Your task to perform on an android device: Go to ESPN.com Image 0: 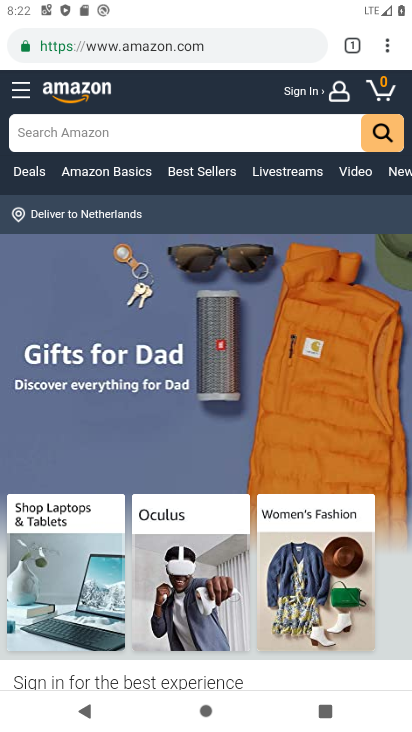
Step 0: press home button
Your task to perform on an android device: Go to ESPN.com Image 1: 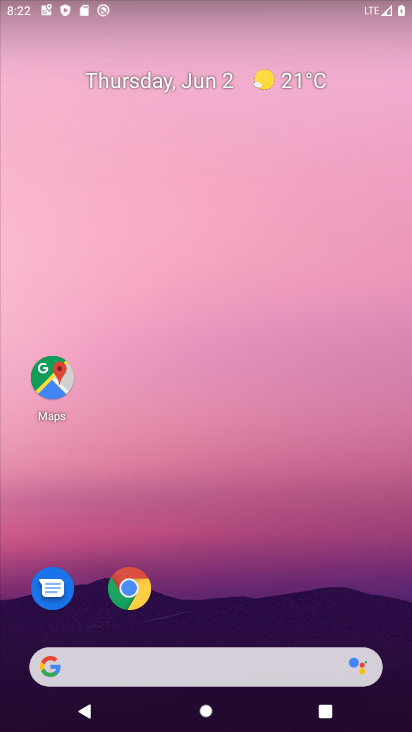
Step 1: drag from (267, 646) to (267, 214)
Your task to perform on an android device: Go to ESPN.com Image 2: 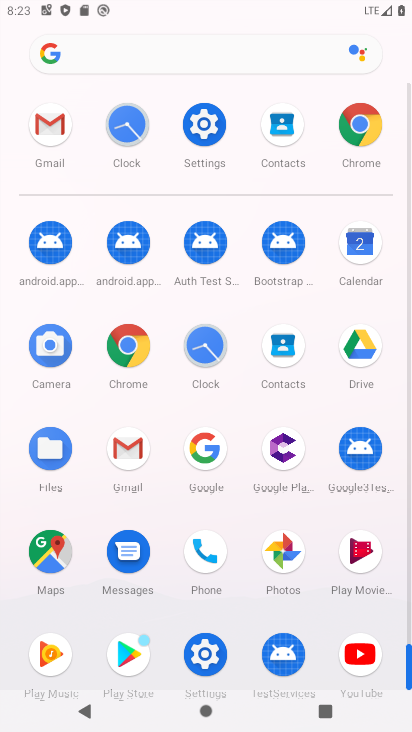
Step 2: click (354, 150)
Your task to perform on an android device: Go to ESPN.com Image 3: 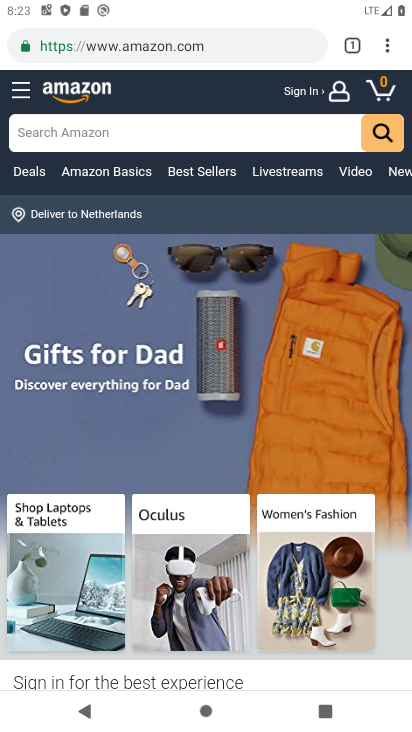
Step 3: click (250, 44)
Your task to perform on an android device: Go to ESPN.com Image 4: 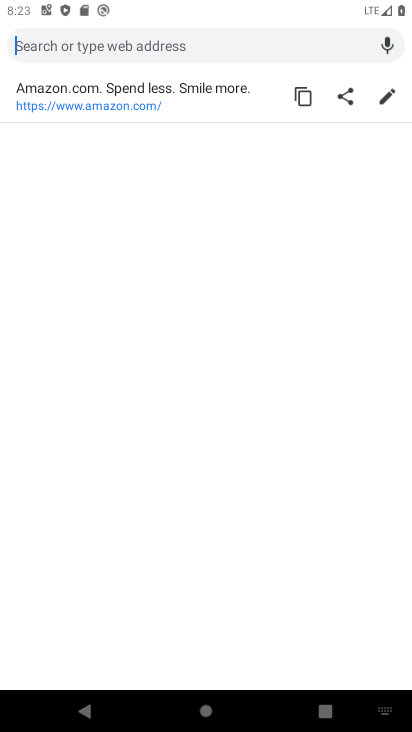
Step 4: type "espn"
Your task to perform on an android device: Go to ESPN.com Image 5: 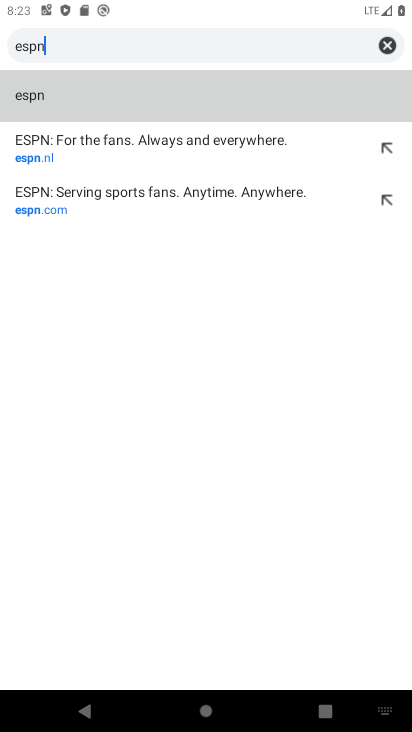
Step 5: click (195, 153)
Your task to perform on an android device: Go to ESPN.com Image 6: 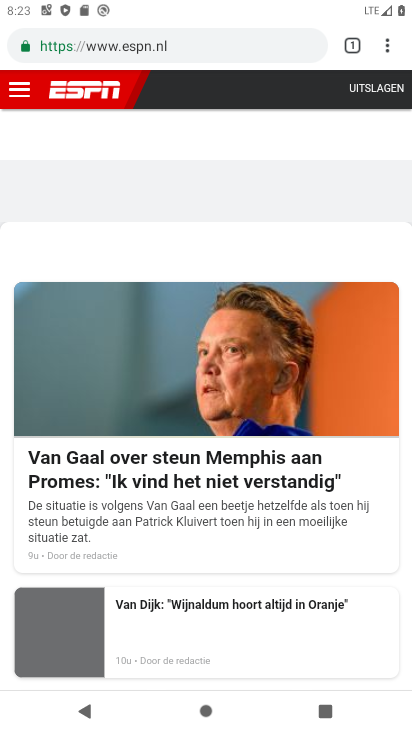
Step 6: task complete